Your task to perform on an android device: Go to wifi settings Image 0: 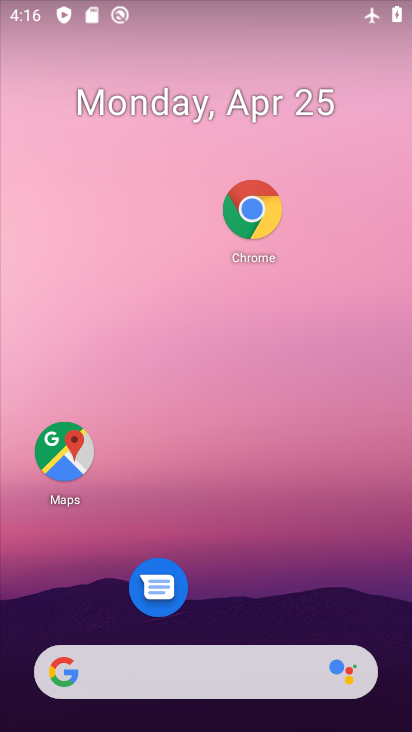
Step 0: drag from (235, 616) to (152, 249)
Your task to perform on an android device: Go to wifi settings Image 1: 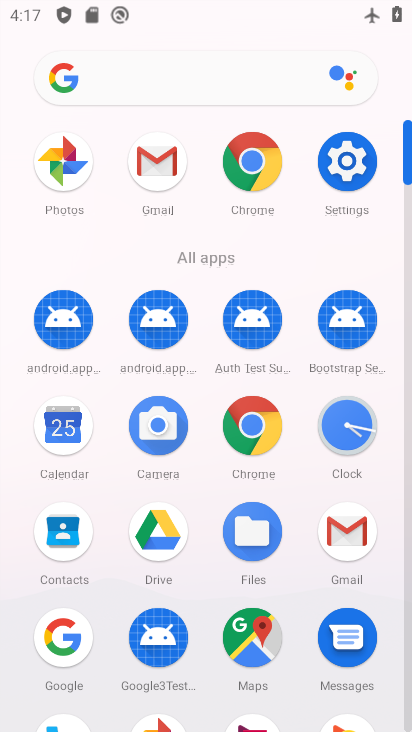
Step 1: click (352, 167)
Your task to perform on an android device: Go to wifi settings Image 2: 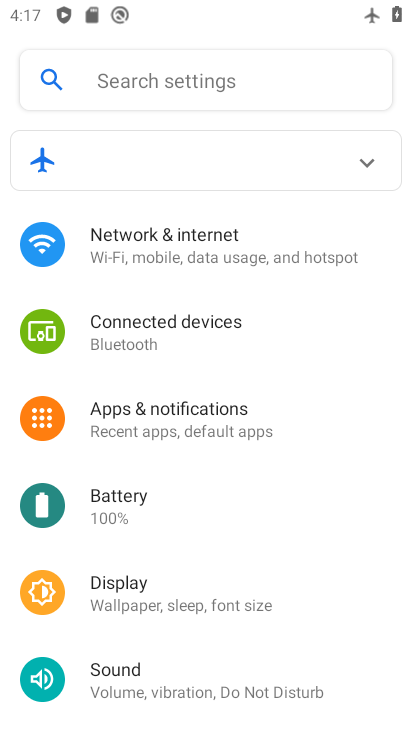
Step 2: click (312, 266)
Your task to perform on an android device: Go to wifi settings Image 3: 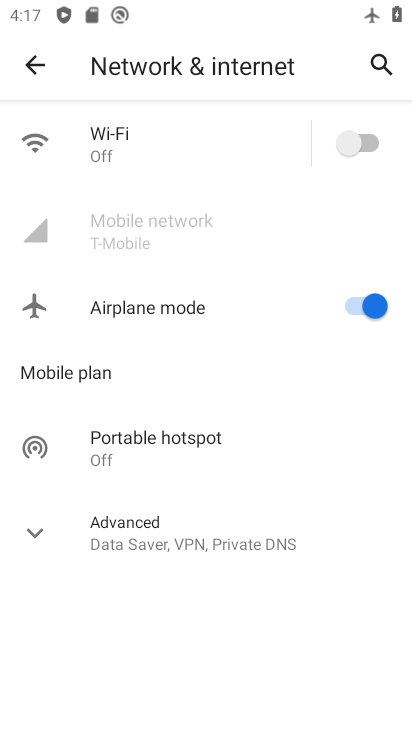
Step 3: click (165, 142)
Your task to perform on an android device: Go to wifi settings Image 4: 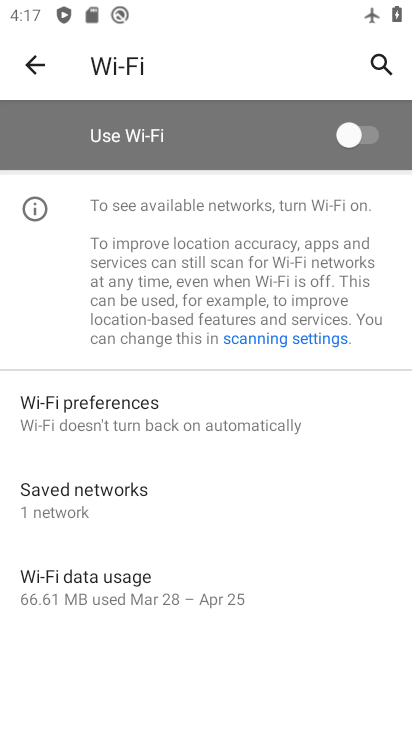
Step 4: task complete